Your task to perform on an android device: Search for seafood restaurants on Google Maps Image 0: 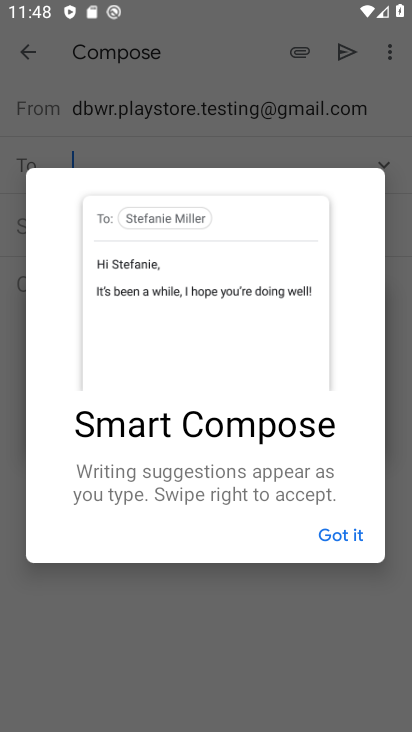
Step 0: press home button
Your task to perform on an android device: Search for seafood restaurants on Google Maps Image 1: 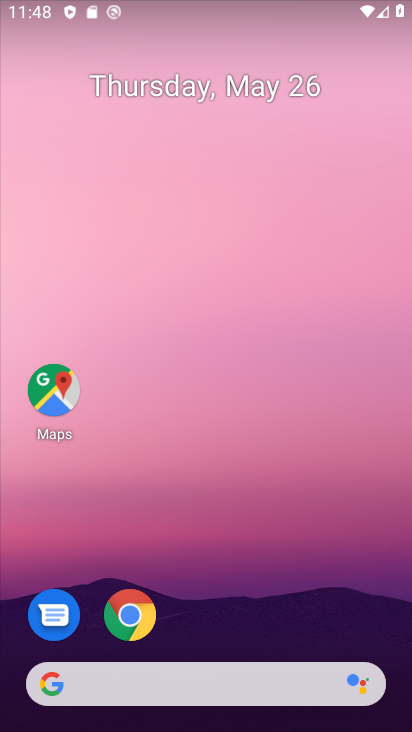
Step 1: click (67, 387)
Your task to perform on an android device: Search for seafood restaurants on Google Maps Image 2: 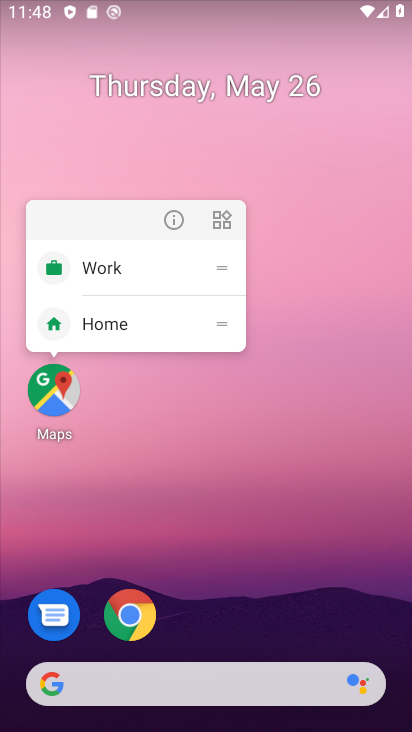
Step 2: click (61, 399)
Your task to perform on an android device: Search for seafood restaurants on Google Maps Image 3: 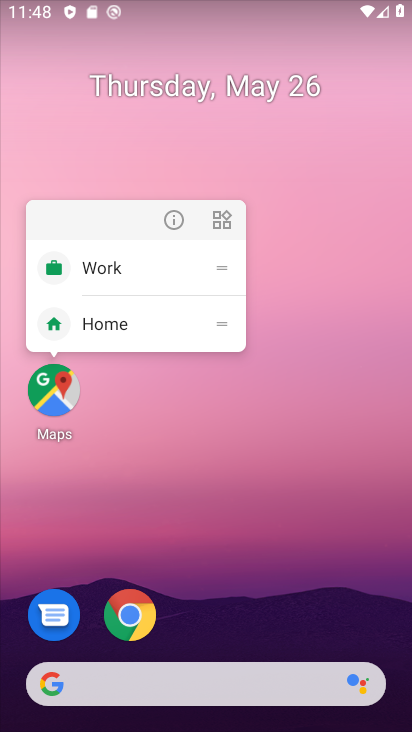
Step 3: click (60, 402)
Your task to perform on an android device: Search for seafood restaurants on Google Maps Image 4: 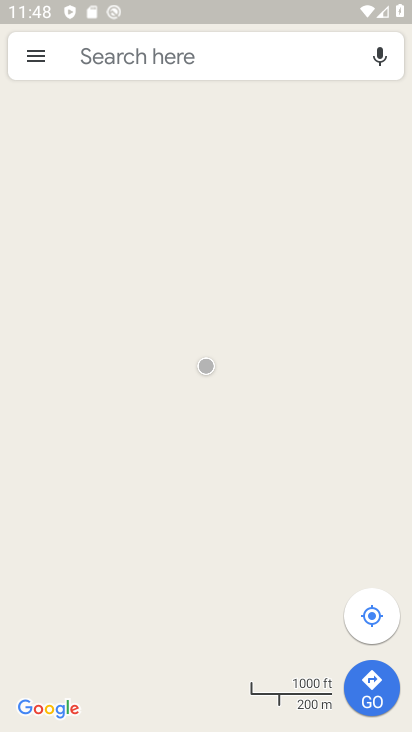
Step 4: click (164, 70)
Your task to perform on an android device: Search for seafood restaurants on Google Maps Image 5: 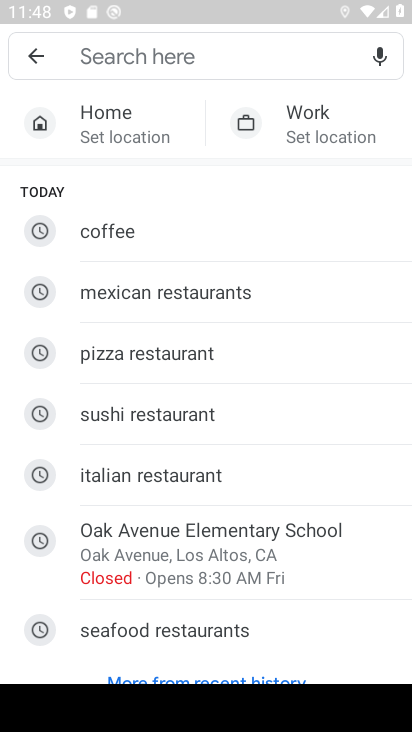
Step 5: type "seafood restaurants"
Your task to perform on an android device: Search for seafood restaurants on Google Maps Image 6: 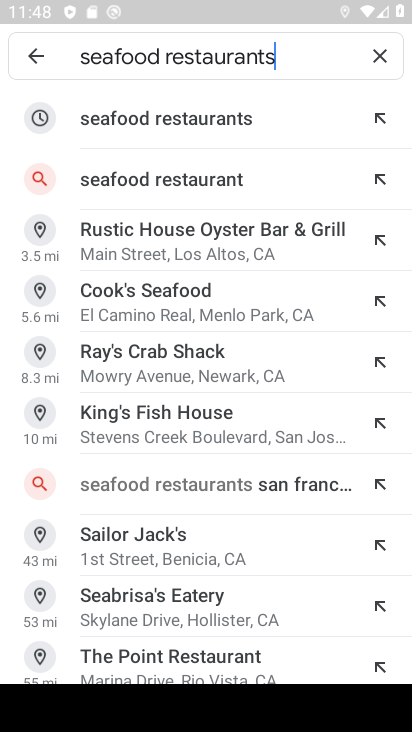
Step 6: click (149, 101)
Your task to perform on an android device: Search for seafood restaurants on Google Maps Image 7: 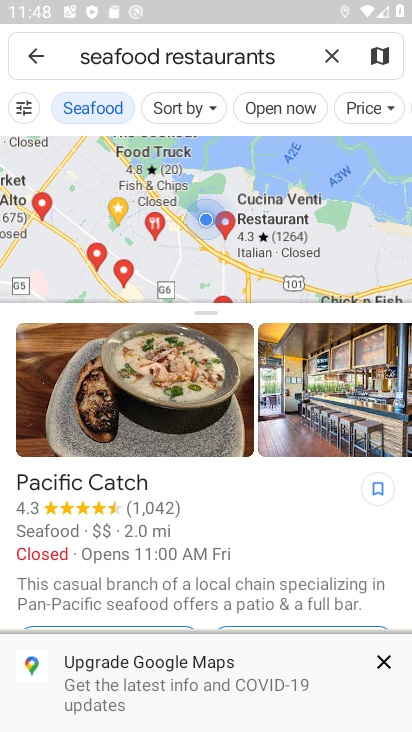
Step 7: task complete